Your task to perform on an android device: turn pop-ups on in chrome Image 0: 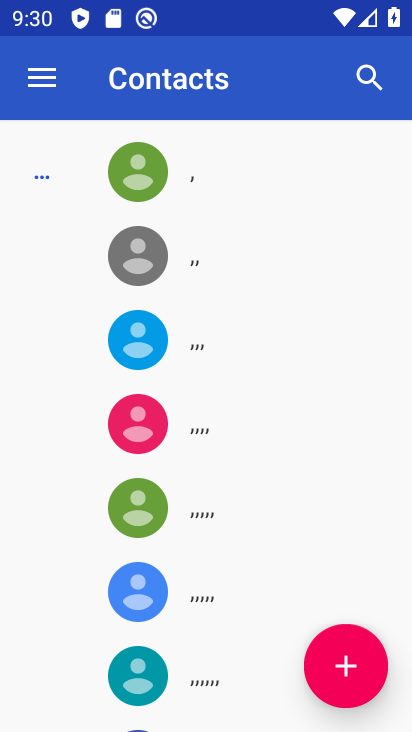
Step 0: press home button
Your task to perform on an android device: turn pop-ups on in chrome Image 1: 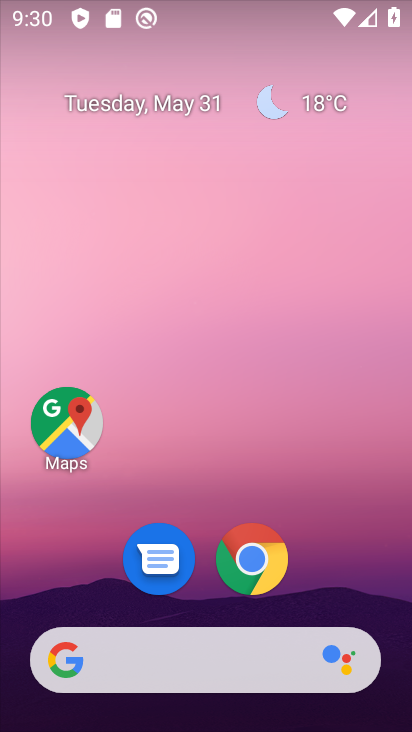
Step 1: click (245, 556)
Your task to perform on an android device: turn pop-ups on in chrome Image 2: 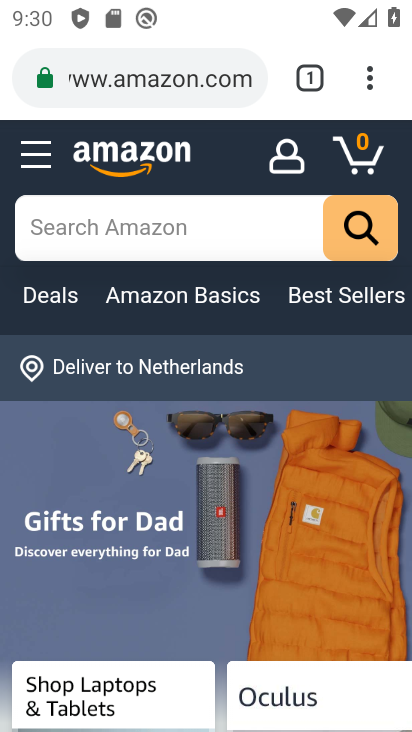
Step 2: click (377, 75)
Your task to perform on an android device: turn pop-ups on in chrome Image 3: 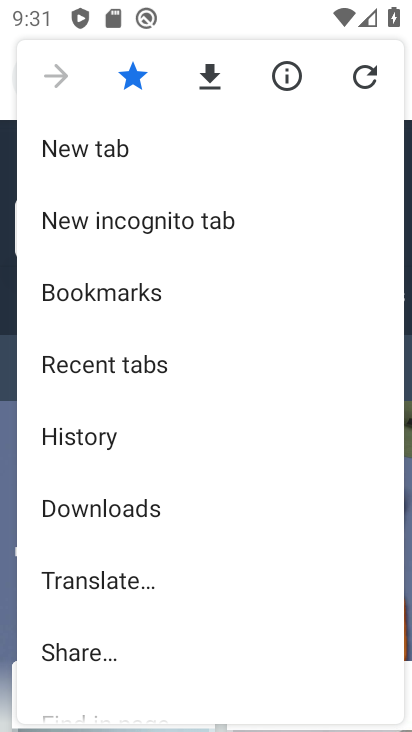
Step 3: press back button
Your task to perform on an android device: turn pop-ups on in chrome Image 4: 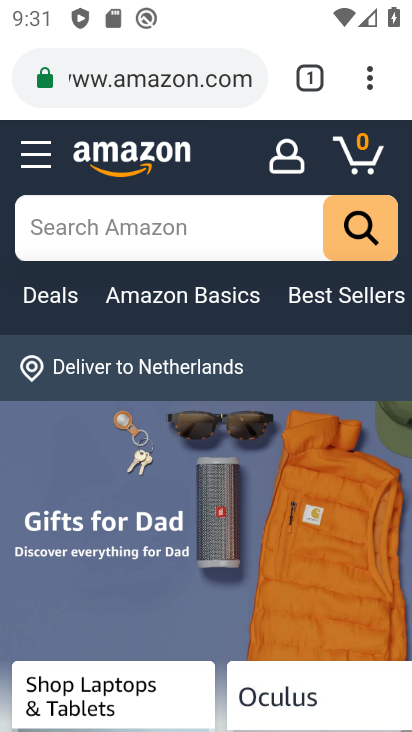
Step 4: click (367, 63)
Your task to perform on an android device: turn pop-ups on in chrome Image 5: 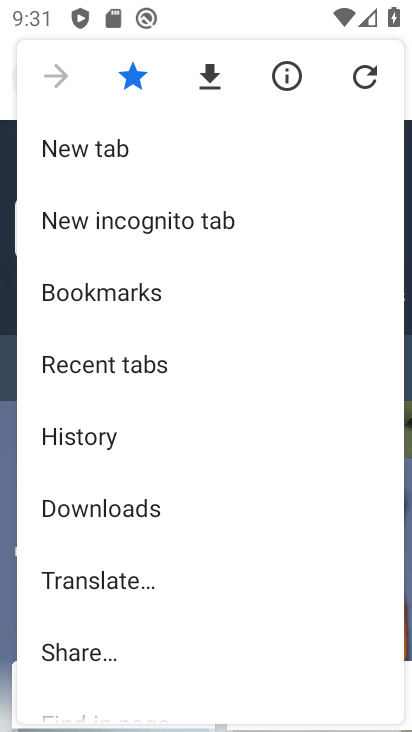
Step 5: drag from (181, 593) to (209, 274)
Your task to perform on an android device: turn pop-ups on in chrome Image 6: 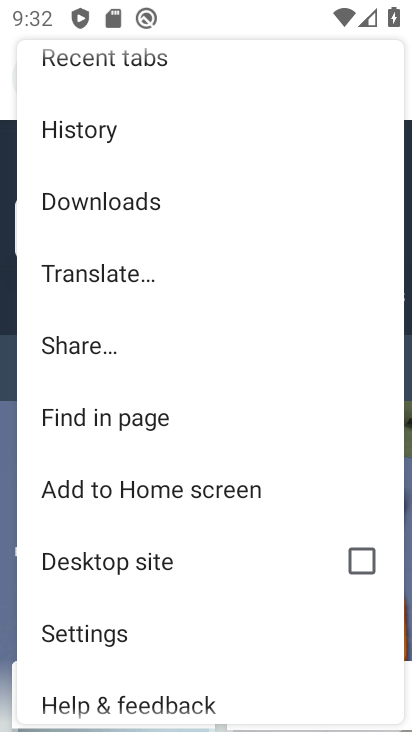
Step 6: click (112, 632)
Your task to perform on an android device: turn pop-ups on in chrome Image 7: 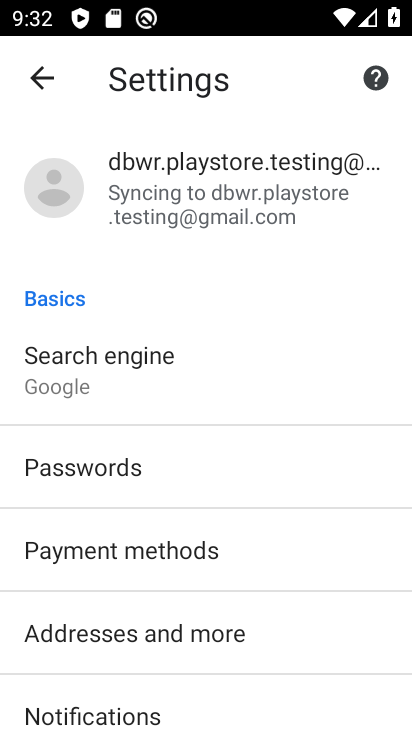
Step 7: drag from (214, 595) to (258, 150)
Your task to perform on an android device: turn pop-ups on in chrome Image 8: 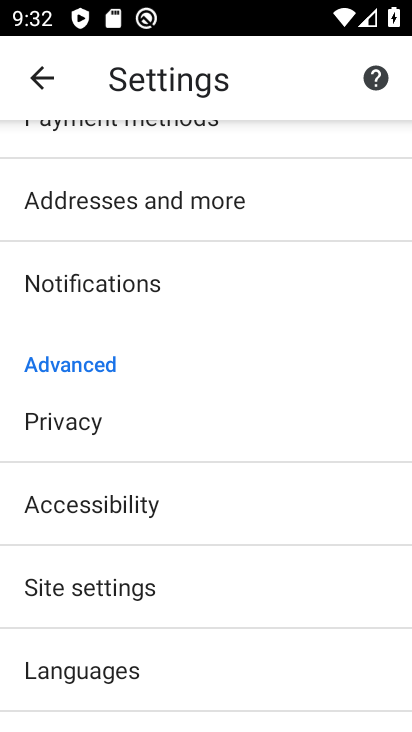
Step 8: click (120, 602)
Your task to perform on an android device: turn pop-ups on in chrome Image 9: 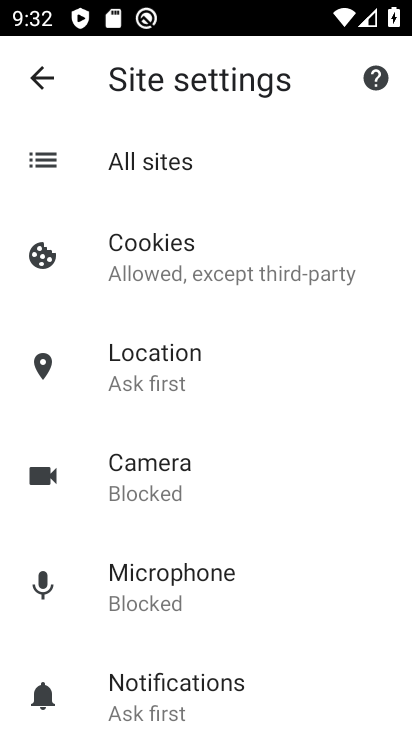
Step 9: drag from (168, 612) to (280, 148)
Your task to perform on an android device: turn pop-ups on in chrome Image 10: 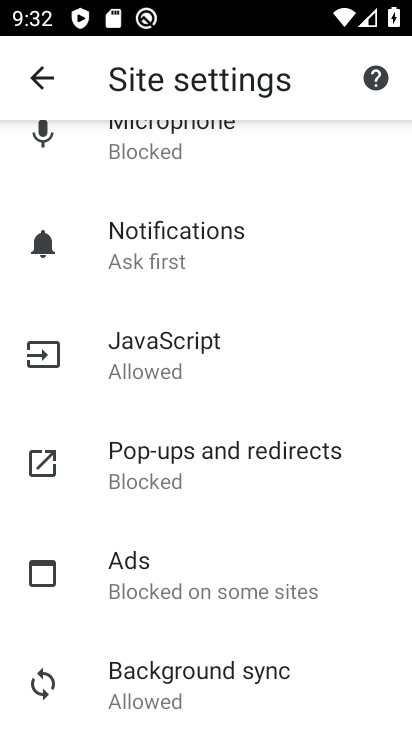
Step 10: click (195, 465)
Your task to perform on an android device: turn pop-ups on in chrome Image 11: 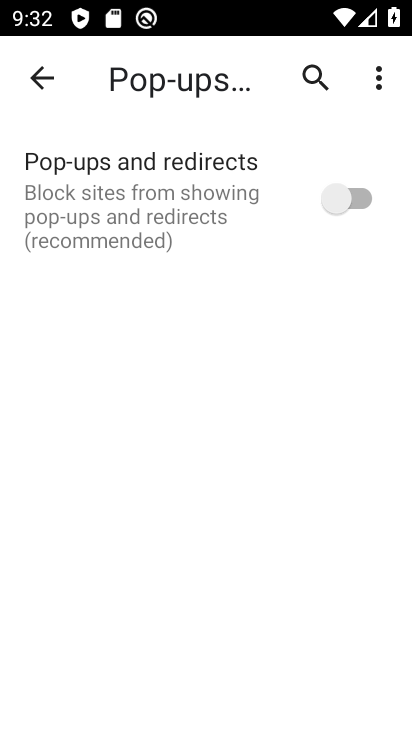
Step 11: click (353, 193)
Your task to perform on an android device: turn pop-ups on in chrome Image 12: 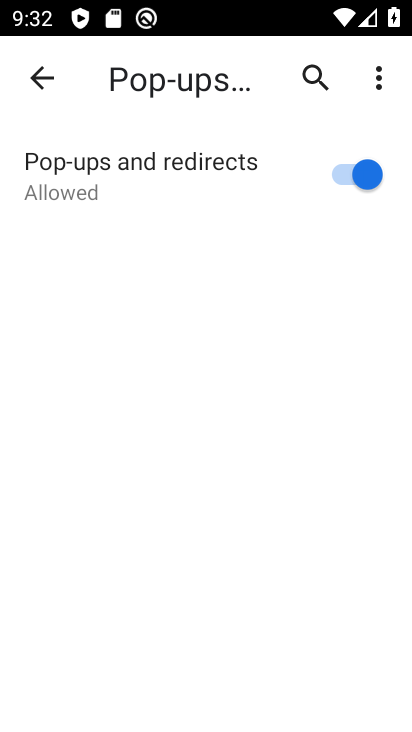
Step 12: task complete